Your task to perform on an android device: Open Maps and search for coffee Image 0: 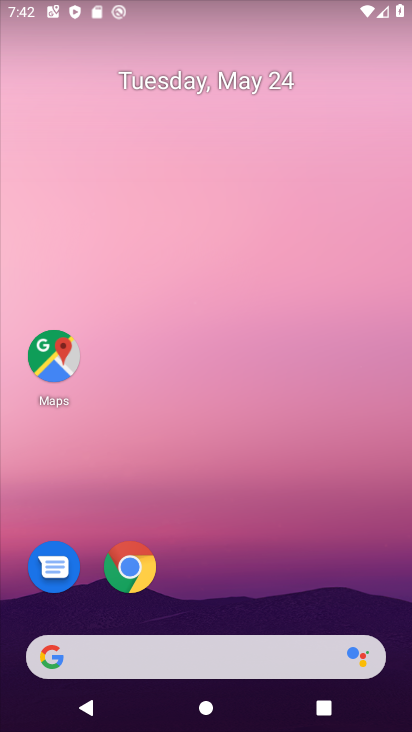
Step 0: task complete